Your task to perform on an android device: find photos in the google photos app Image 0: 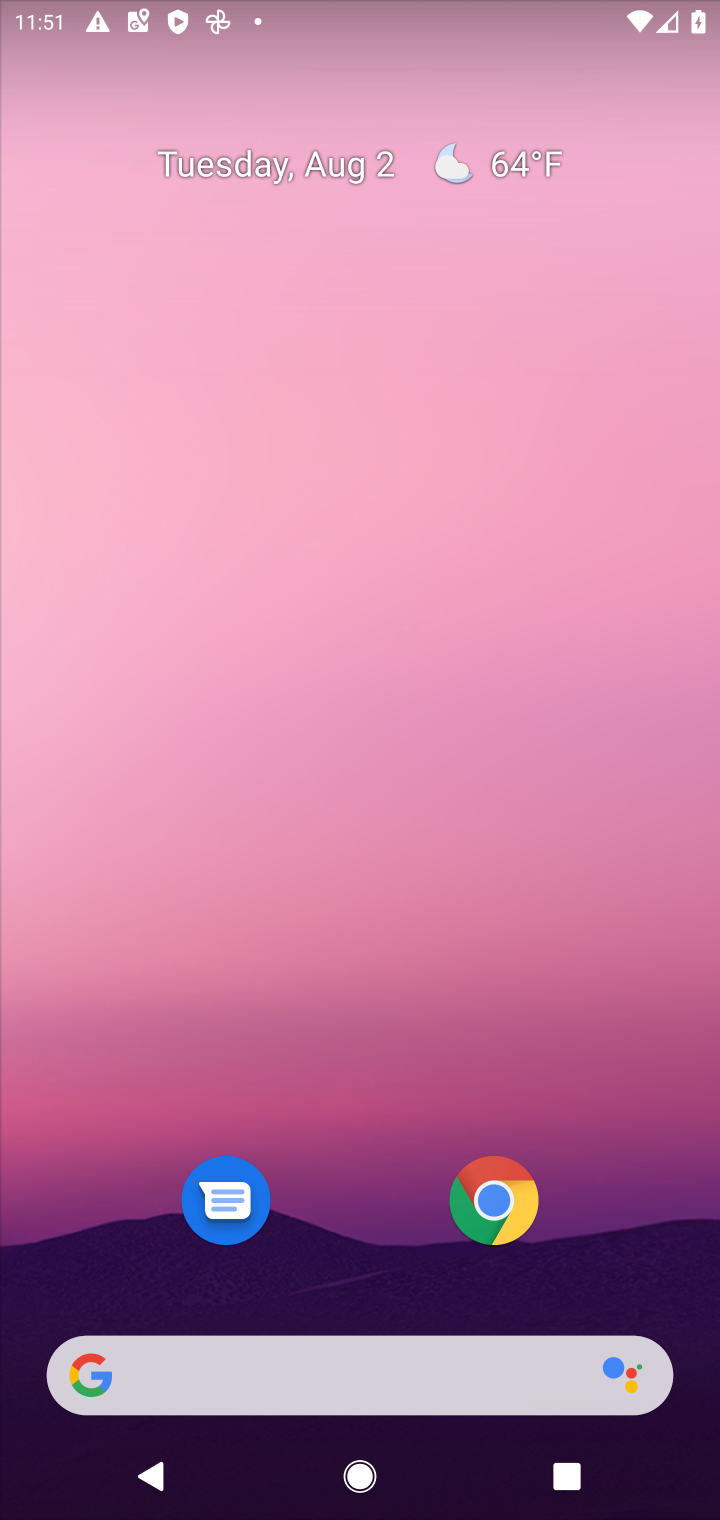
Step 0: drag from (675, 1269) to (489, 27)
Your task to perform on an android device: find photos in the google photos app Image 1: 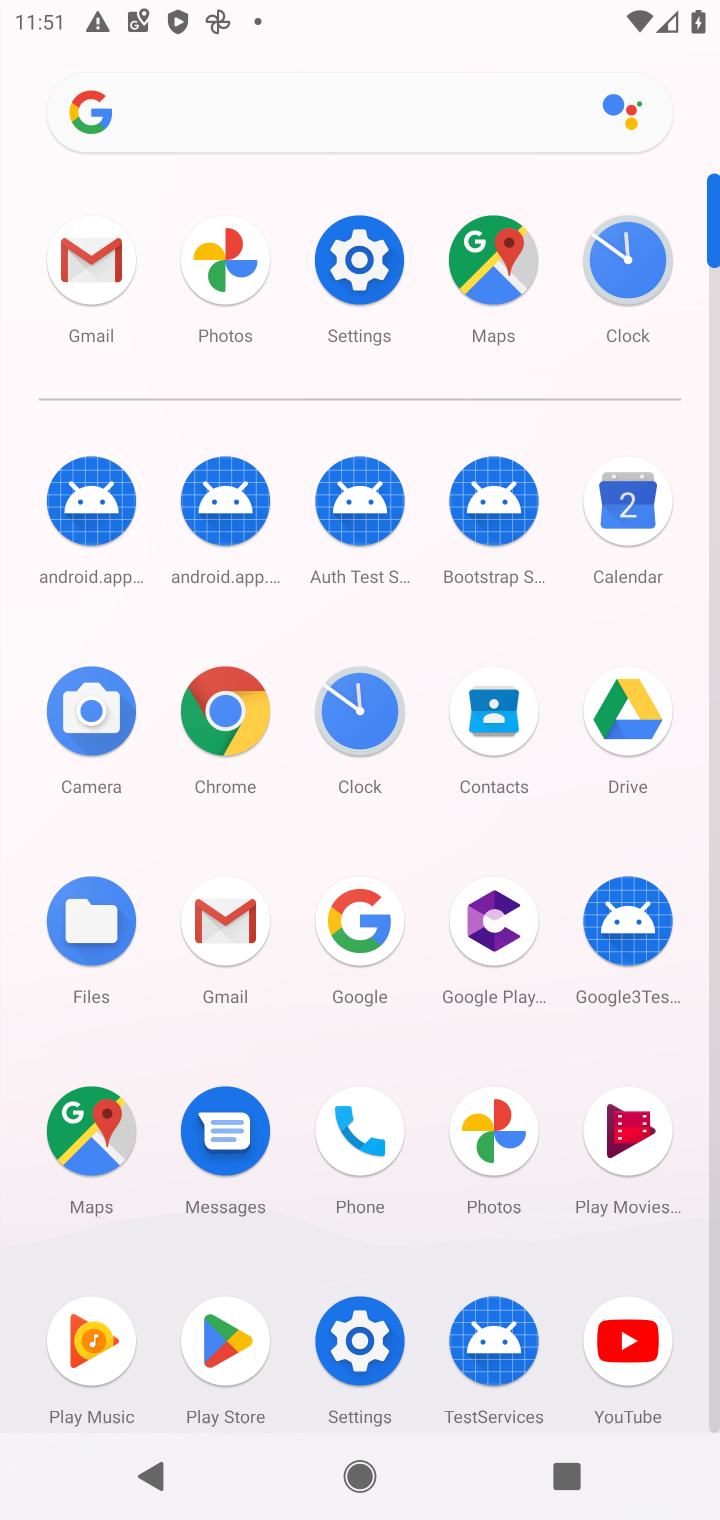
Step 1: click (496, 1125)
Your task to perform on an android device: find photos in the google photos app Image 2: 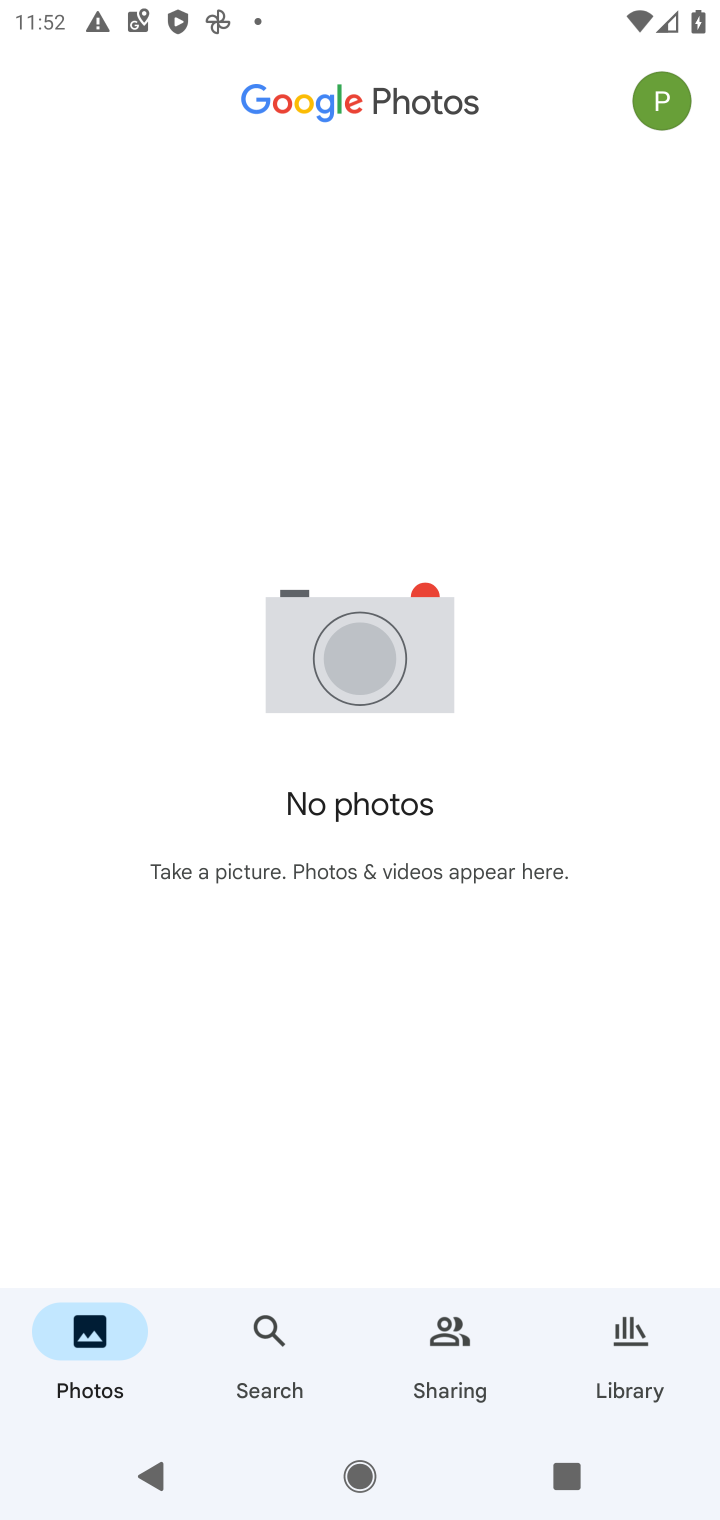
Step 2: task complete